Your task to perform on an android device: Do I have any events tomorrow? Image 0: 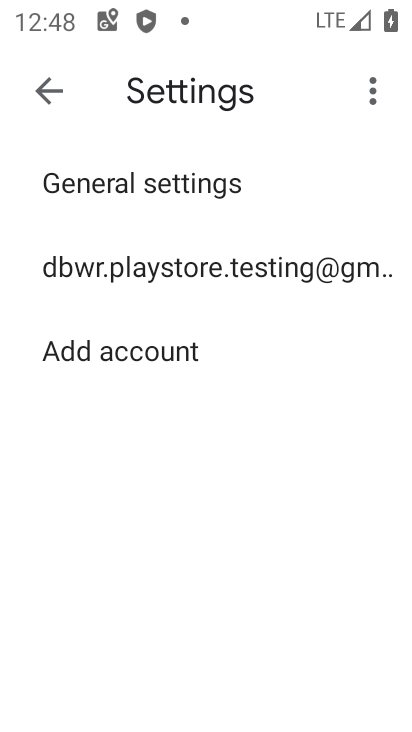
Step 0: press home button
Your task to perform on an android device: Do I have any events tomorrow? Image 1: 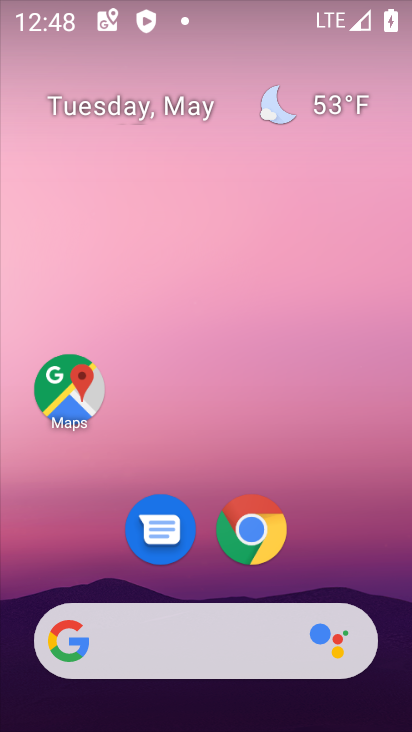
Step 1: drag from (198, 721) to (183, 134)
Your task to perform on an android device: Do I have any events tomorrow? Image 2: 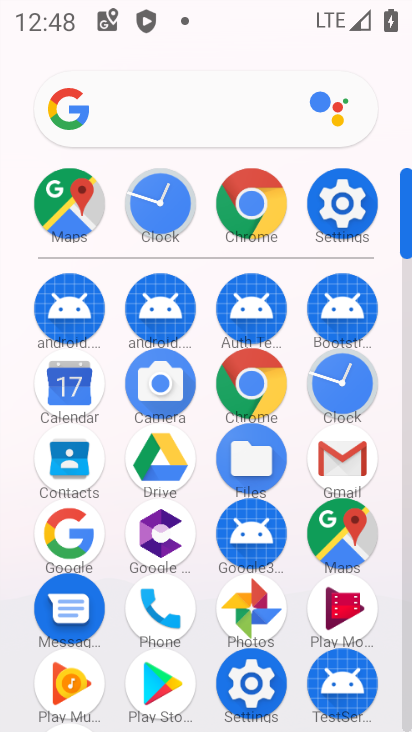
Step 2: click (65, 386)
Your task to perform on an android device: Do I have any events tomorrow? Image 3: 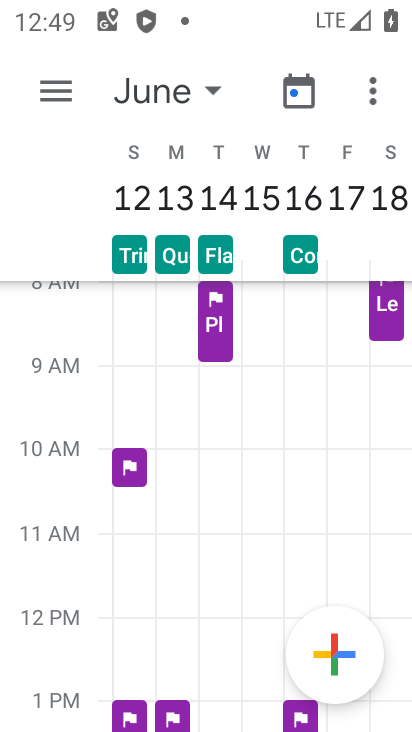
Step 3: click (161, 93)
Your task to perform on an android device: Do I have any events tomorrow? Image 4: 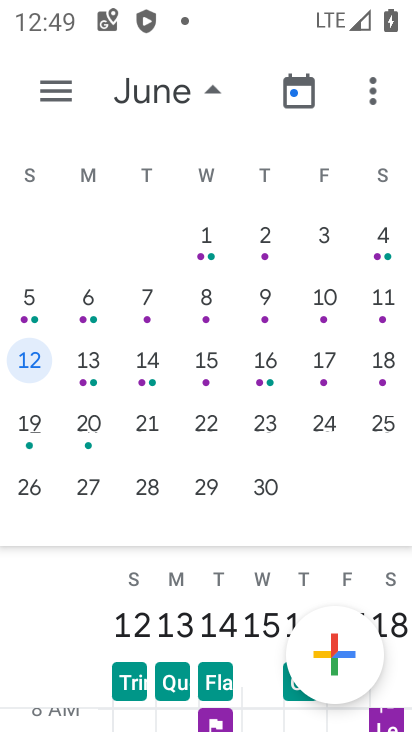
Step 4: drag from (41, 368) to (405, 325)
Your task to perform on an android device: Do I have any events tomorrow? Image 5: 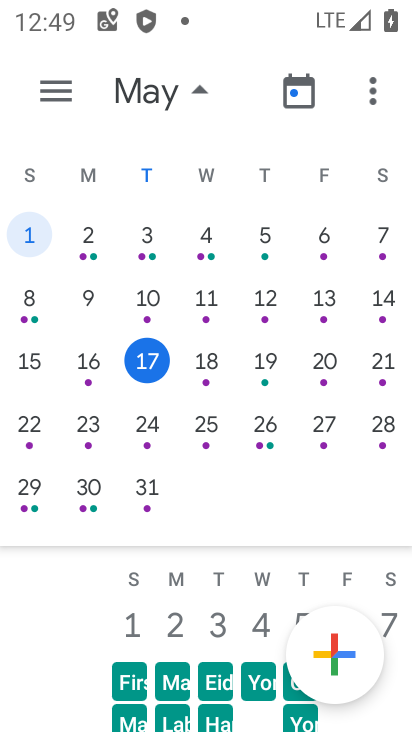
Step 5: click (213, 356)
Your task to perform on an android device: Do I have any events tomorrow? Image 6: 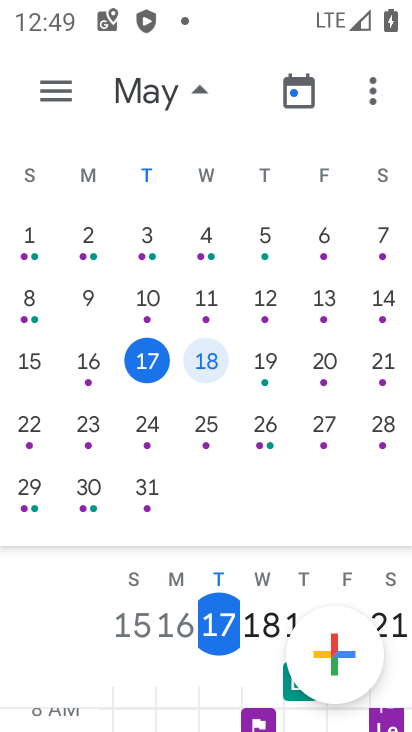
Step 6: click (215, 359)
Your task to perform on an android device: Do I have any events tomorrow? Image 7: 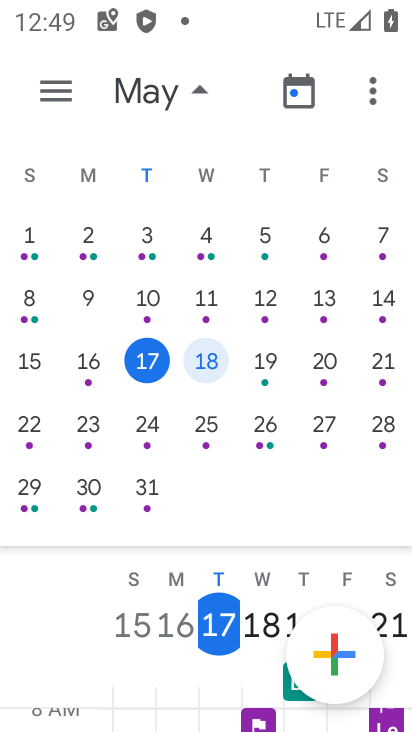
Step 7: click (197, 93)
Your task to perform on an android device: Do I have any events tomorrow? Image 8: 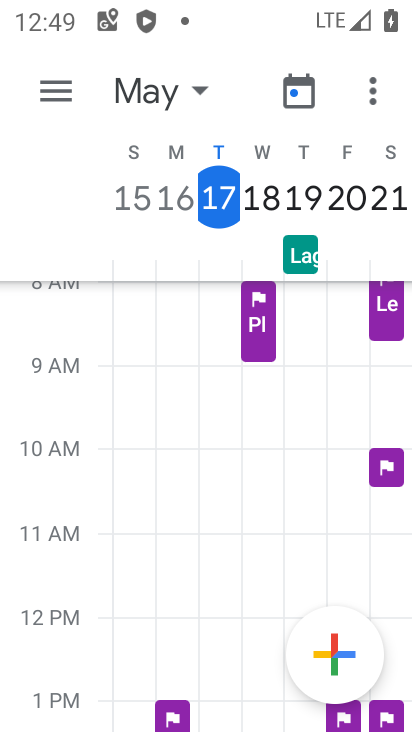
Step 8: task complete